Your task to perform on an android device: toggle improve location accuracy Image 0: 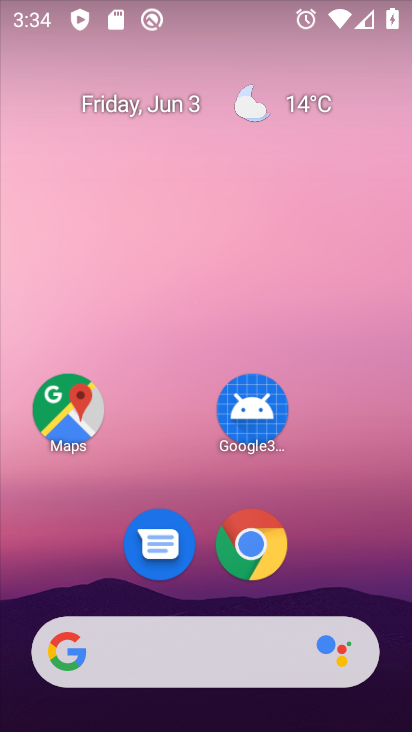
Step 0: drag from (82, 605) to (175, 118)
Your task to perform on an android device: toggle improve location accuracy Image 1: 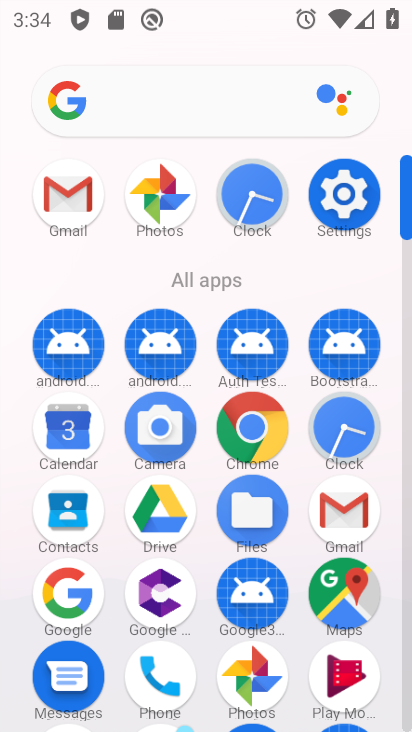
Step 1: drag from (187, 622) to (261, 326)
Your task to perform on an android device: toggle improve location accuracy Image 2: 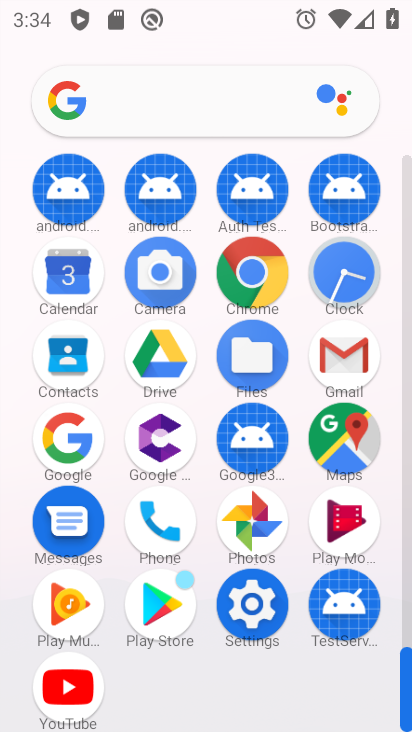
Step 2: click (252, 612)
Your task to perform on an android device: toggle improve location accuracy Image 3: 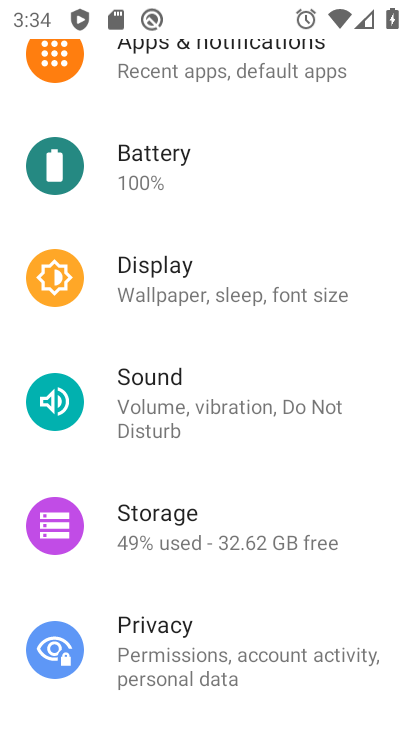
Step 3: drag from (239, 691) to (337, 299)
Your task to perform on an android device: toggle improve location accuracy Image 4: 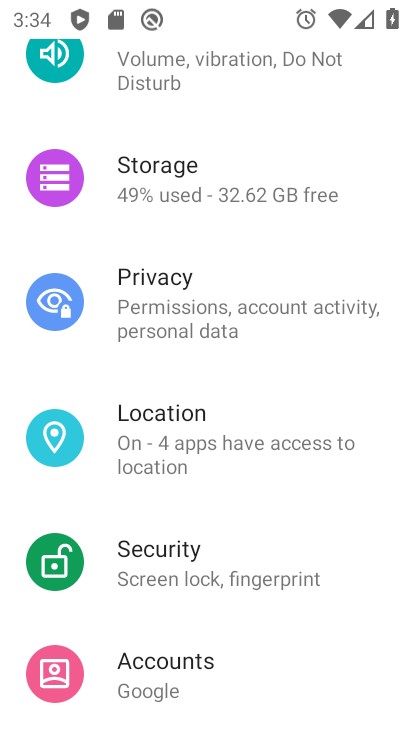
Step 4: click (260, 442)
Your task to perform on an android device: toggle improve location accuracy Image 5: 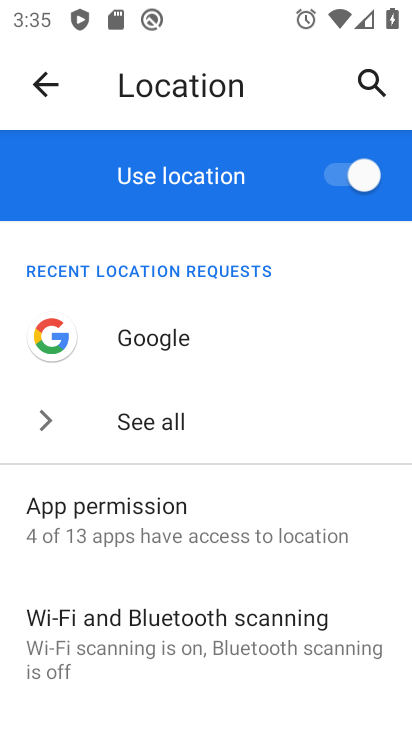
Step 5: drag from (223, 612) to (200, 476)
Your task to perform on an android device: toggle improve location accuracy Image 6: 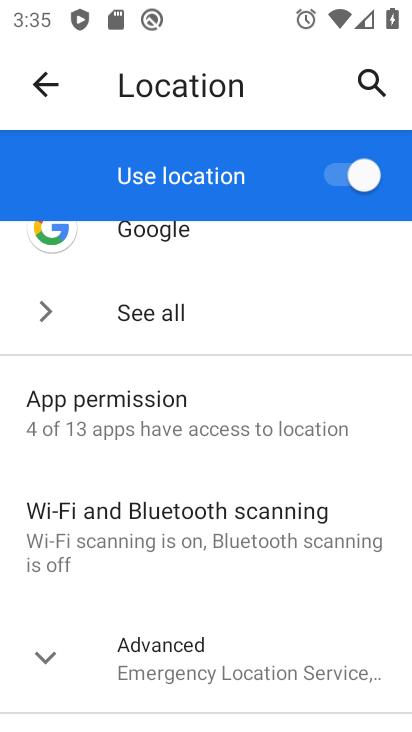
Step 6: click (143, 660)
Your task to perform on an android device: toggle improve location accuracy Image 7: 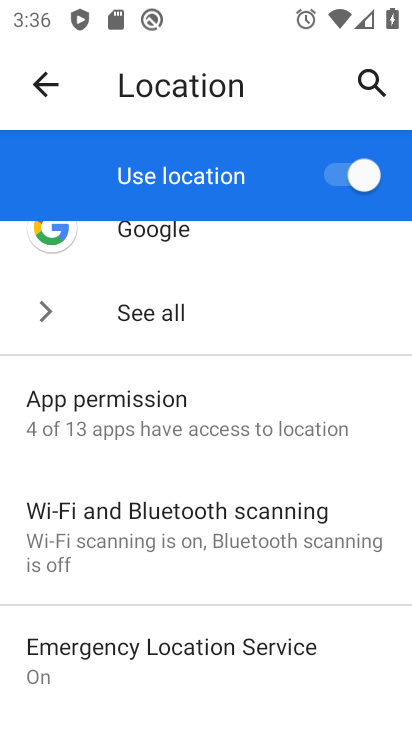
Step 7: drag from (274, 684) to (332, 342)
Your task to perform on an android device: toggle improve location accuracy Image 8: 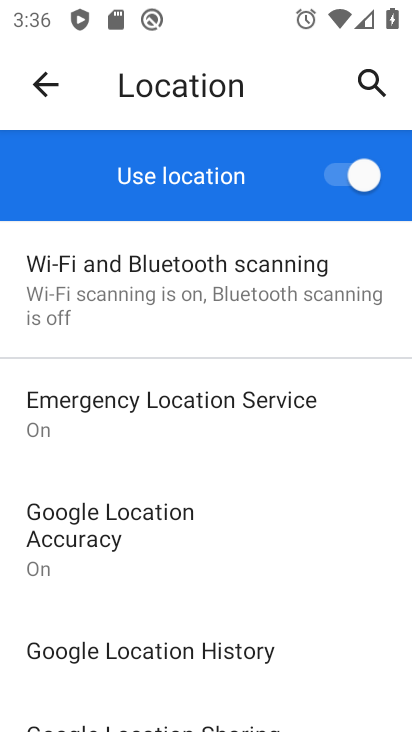
Step 8: drag from (226, 636) to (304, 371)
Your task to perform on an android device: toggle improve location accuracy Image 9: 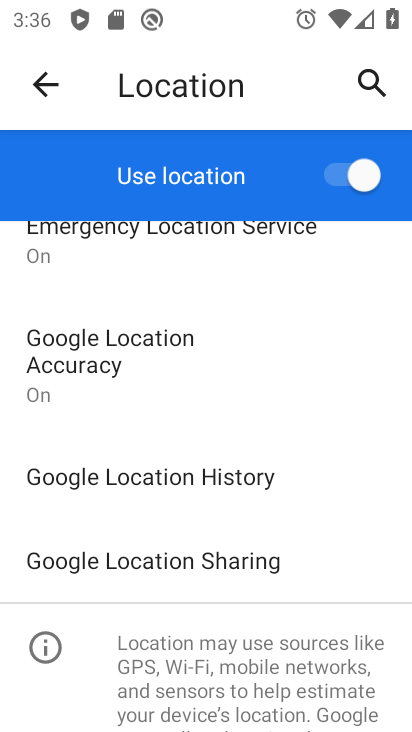
Step 9: drag from (247, 441) to (211, 625)
Your task to perform on an android device: toggle improve location accuracy Image 10: 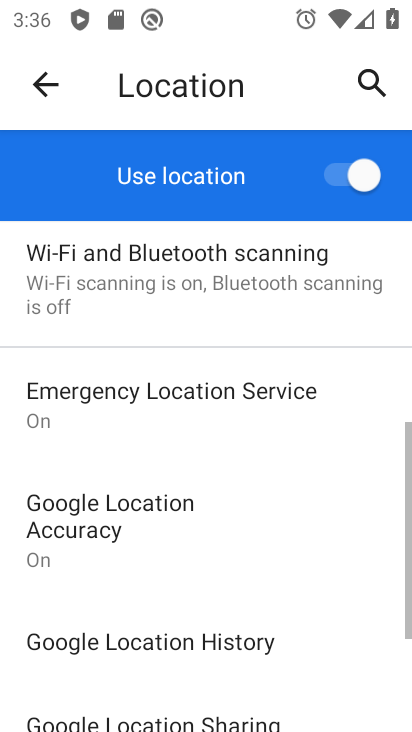
Step 10: click (153, 521)
Your task to perform on an android device: toggle improve location accuracy Image 11: 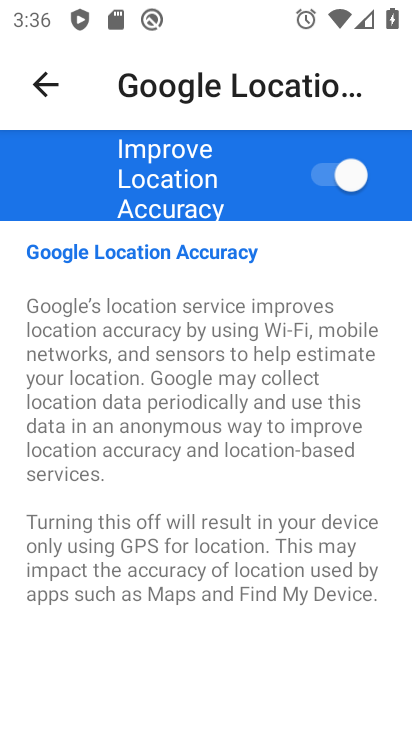
Step 11: click (329, 177)
Your task to perform on an android device: toggle improve location accuracy Image 12: 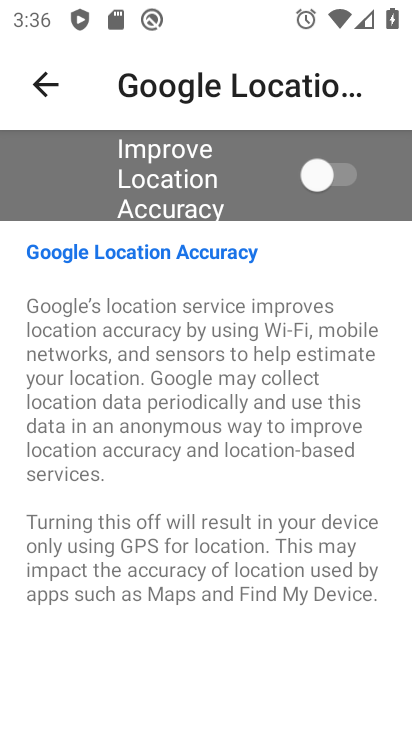
Step 12: task complete